Your task to perform on an android device: clear history in the chrome app Image 0: 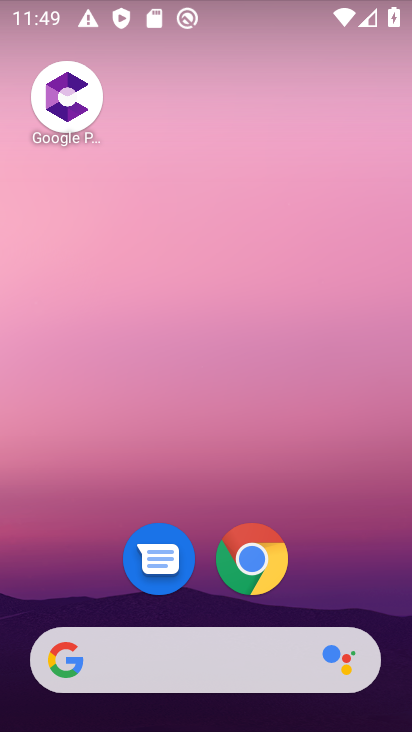
Step 0: click (243, 563)
Your task to perform on an android device: clear history in the chrome app Image 1: 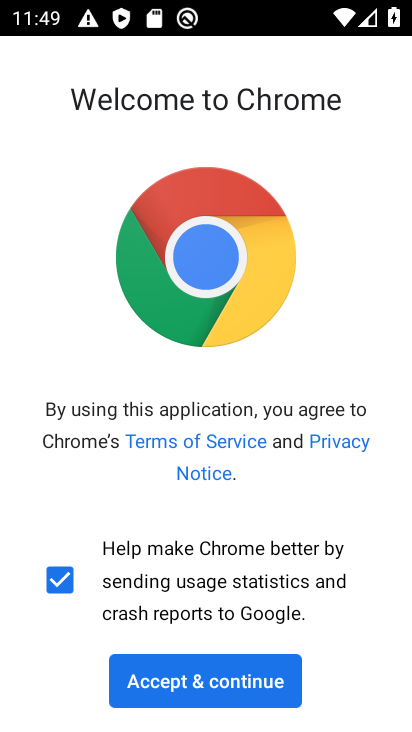
Step 1: click (233, 684)
Your task to perform on an android device: clear history in the chrome app Image 2: 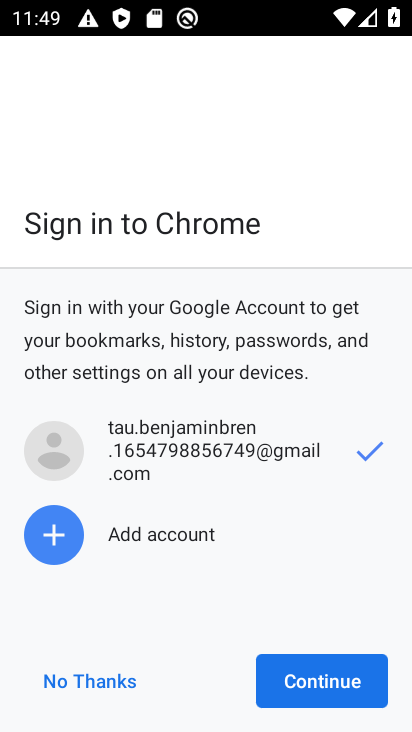
Step 2: click (311, 699)
Your task to perform on an android device: clear history in the chrome app Image 3: 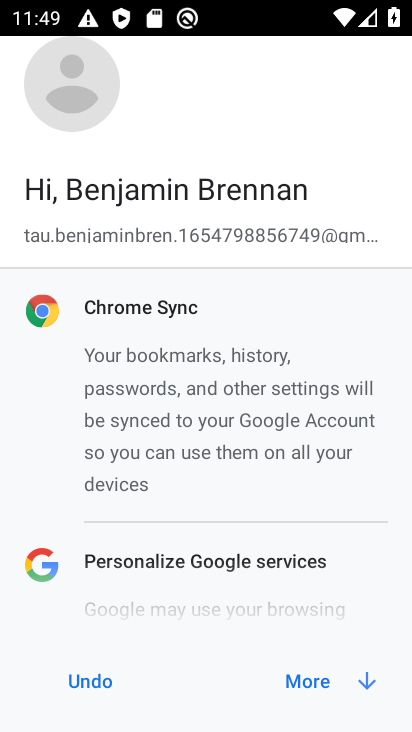
Step 3: click (313, 679)
Your task to perform on an android device: clear history in the chrome app Image 4: 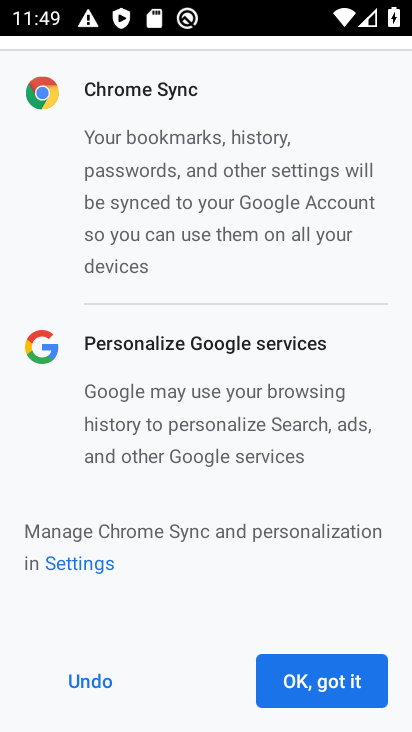
Step 4: click (313, 679)
Your task to perform on an android device: clear history in the chrome app Image 5: 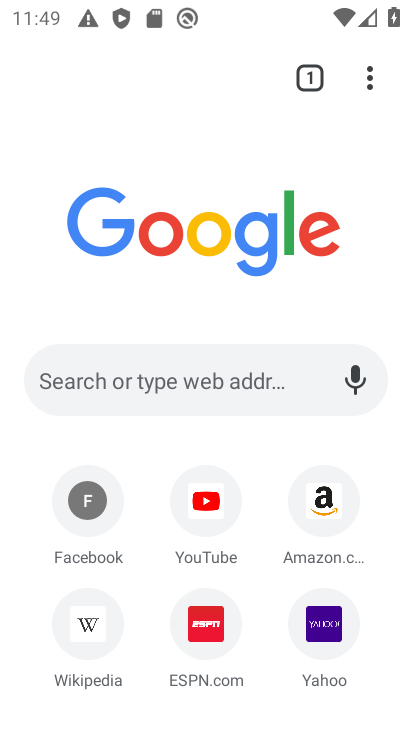
Step 5: click (372, 92)
Your task to perform on an android device: clear history in the chrome app Image 6: 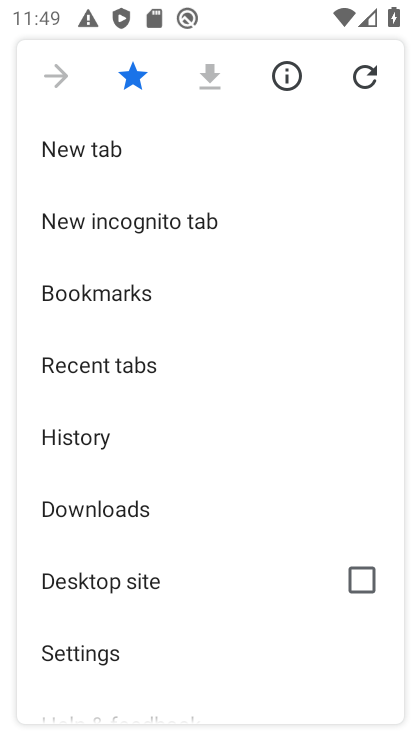
Step 6: click (108, 445)
Your task to perform on an android device: clear history in the chrome app Image 7: 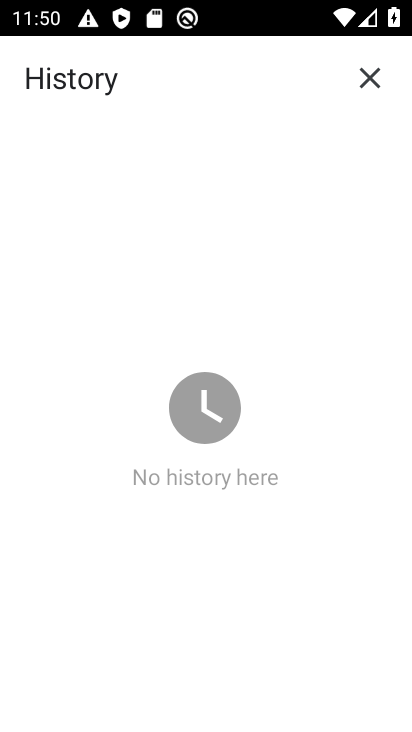
Step 7: task complete